Your task to perform on an android device: Open the phone app and click the voicemail tab. Image 0: 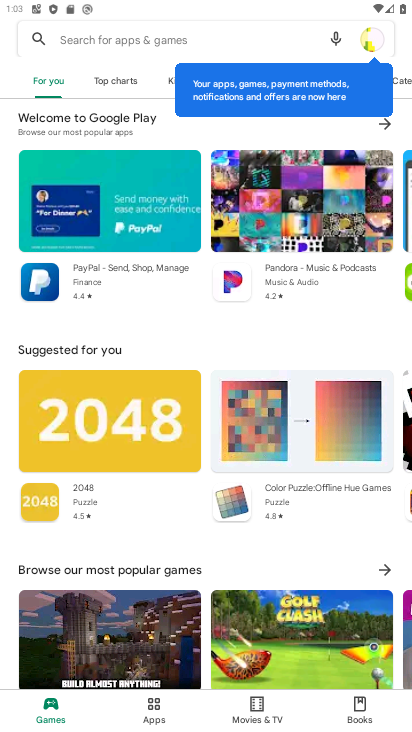
Step 0: press home button
Your task to perform on an android device: Open the phone app and click the voicemail tab. Image 1: 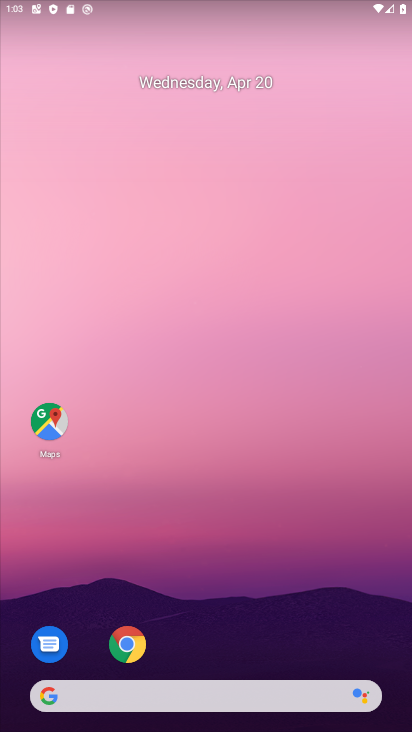
Step 1: drag from (245, 642) to (238, 92)
Your task to perform on an android device: Open the phone app and click the voicemail tab. Image 2: 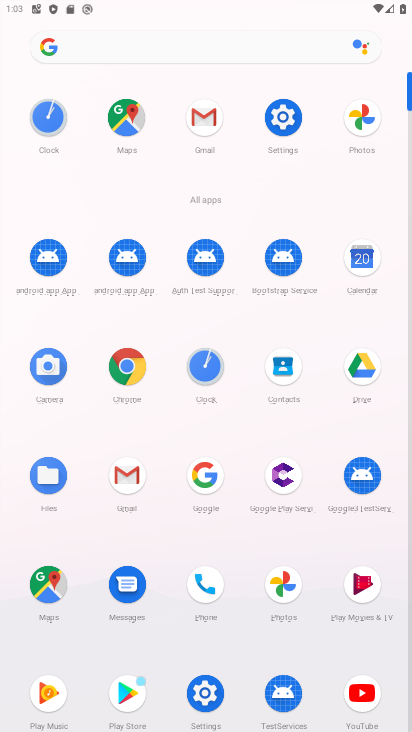
Step 2: click (202, 578)
Your task to perform on an android device: Open the phone app and click the voicemail tab. Image 3: 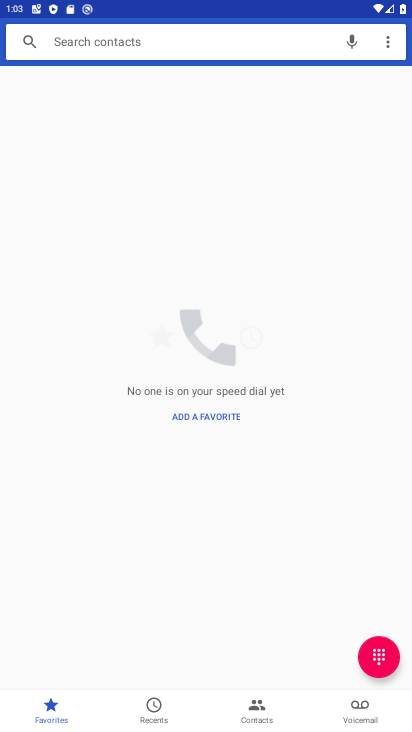
Step 3: click (353, 708)
Your task to perform on an android device: Open the phone app and click the voicemail tab. Image 4: 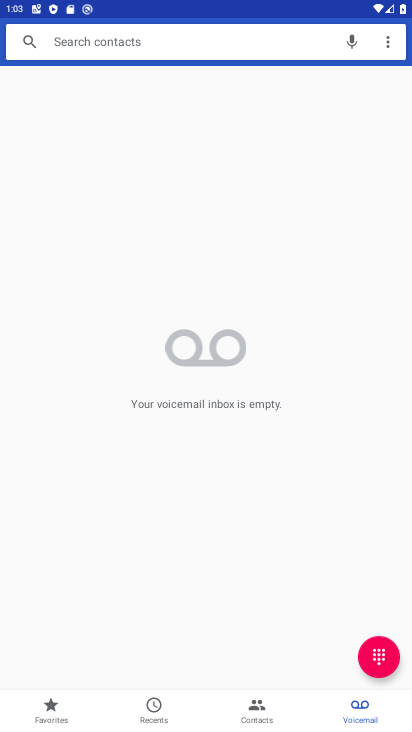
Step 4: task complete